Your task to perform on an android device: Go to Yahoo.com Image 0: 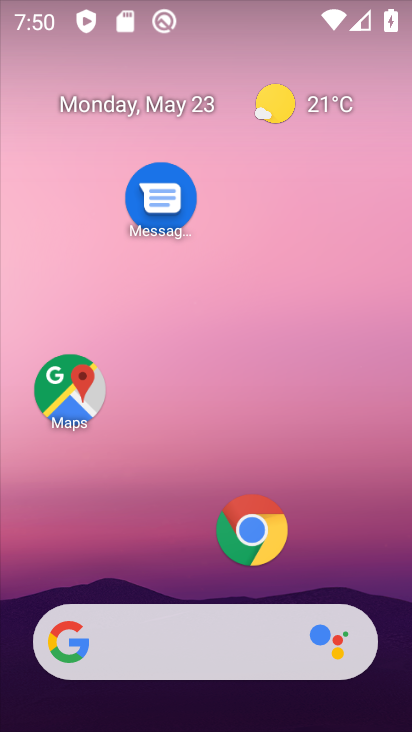
Step 0: click (253, 532)
Your task to perform on an android device: Go to Yahoo.com Image 1: 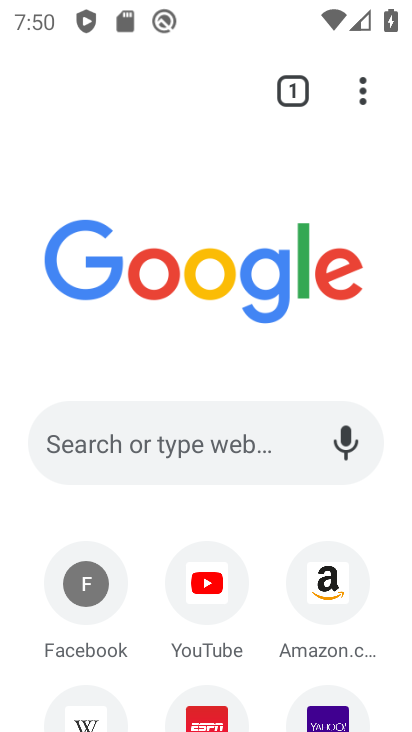
Step 1: click (330, 710)
Your task to perform on an android device: Go to Yahoo.com Image 2: 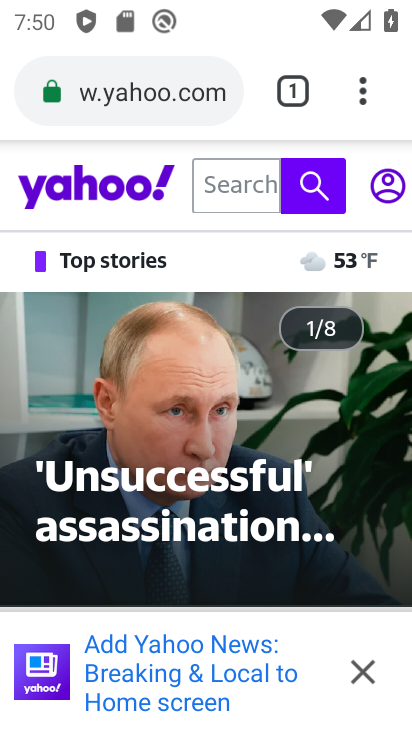
Step 2: task complete